Your task to perform on an android device: open app "Booking.com: Hotels and more" Image 0: 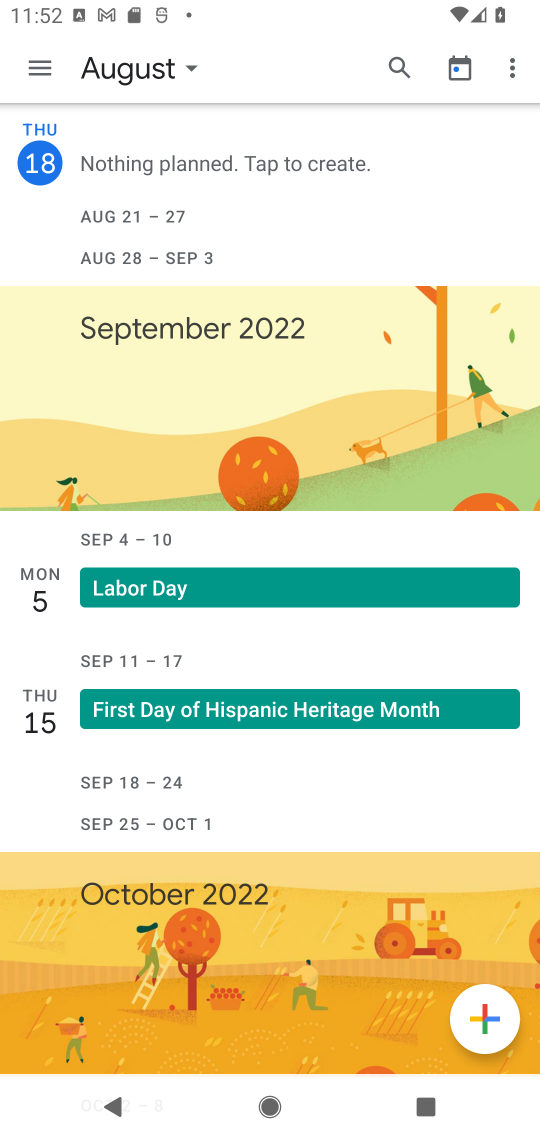
Step 0: press home button
Your task to perform on an android device: open app "Booking.com: Hotels and more" Image 1: 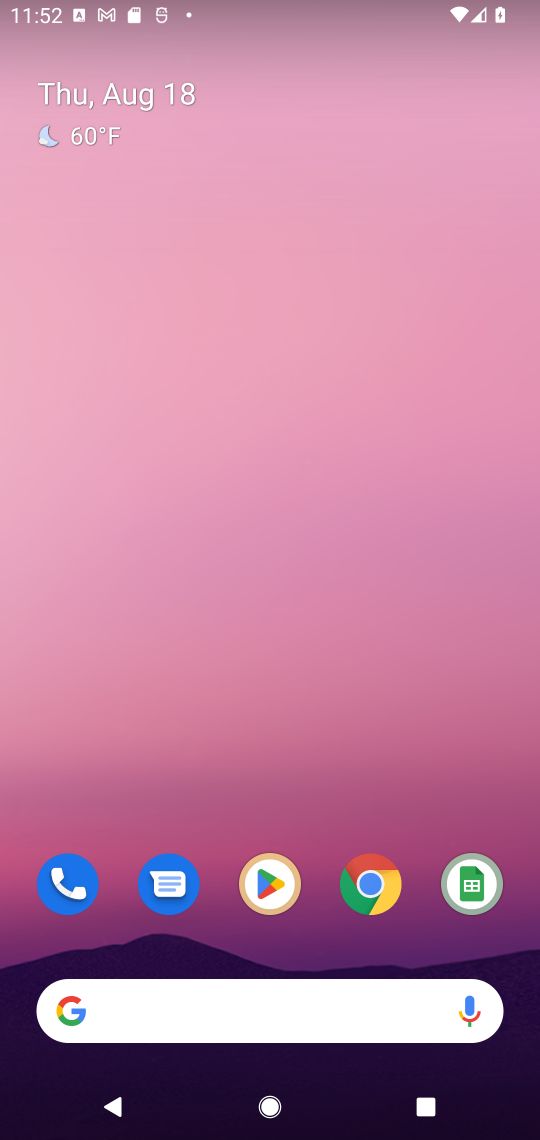
Step 1: drag from (202, 1006) to (251, 163)
Your task to perform on an android device: open app "Booking.com: Hotels and more" Image 2: 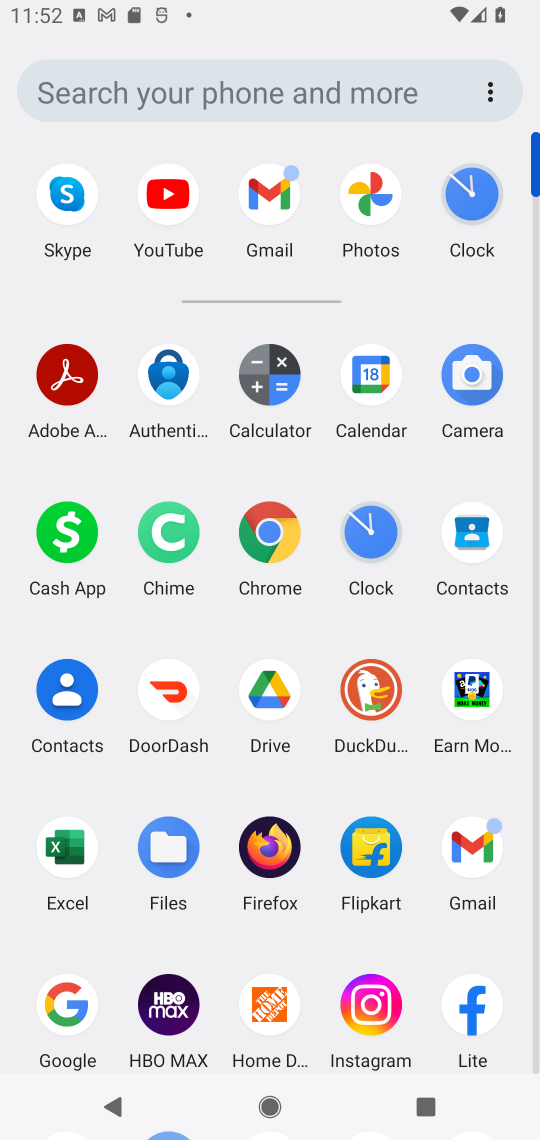
Step 2: drag from (292, 942) to (253, 369)
Your task to perform on an android device: open app "Booking.com: Hotels and more" Image 3: 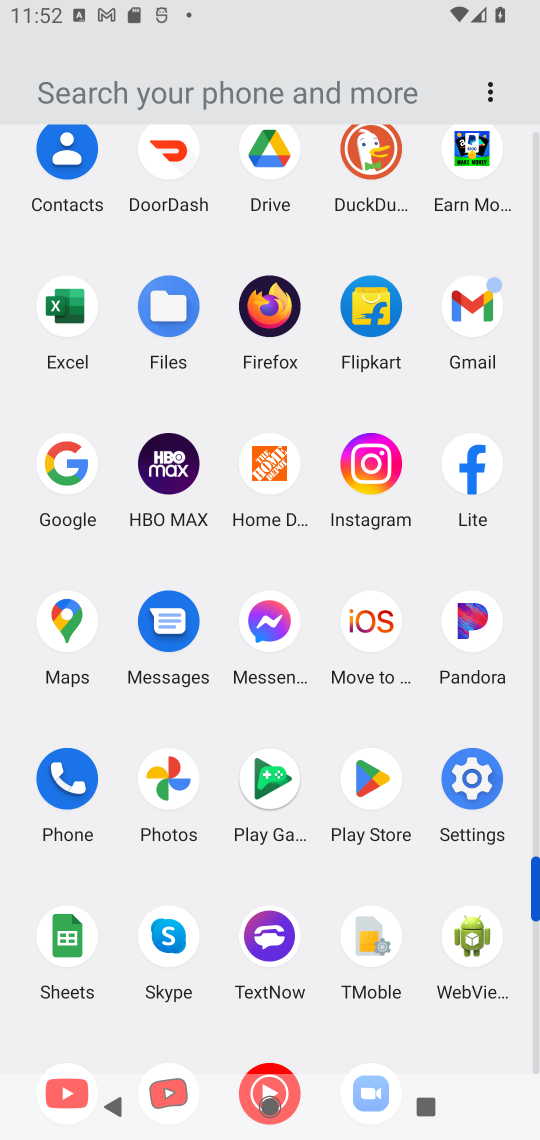
Step 3: click (361, 781)
Your task to perform on an android device: open app "Booking.com: Hotels and more" Image 4: 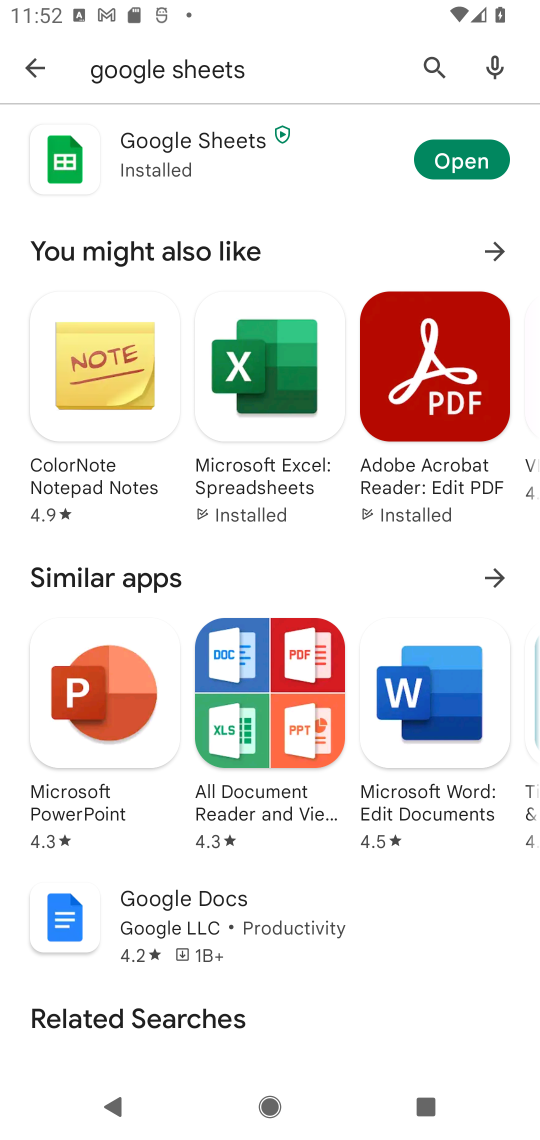
Step 4: press back button
Your task to perform on an android device: open app "Booking.com: Hotels and more" Image 5: 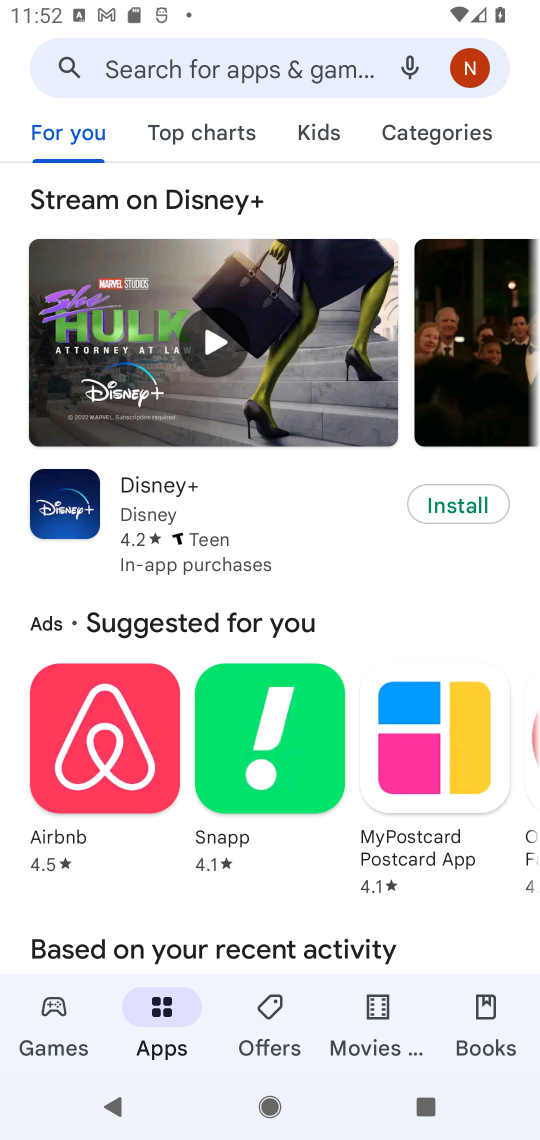
Step 5: click (293, 62)
Your task to perform on an android device: open app "Booking.com: Hotels and more" Image 6: 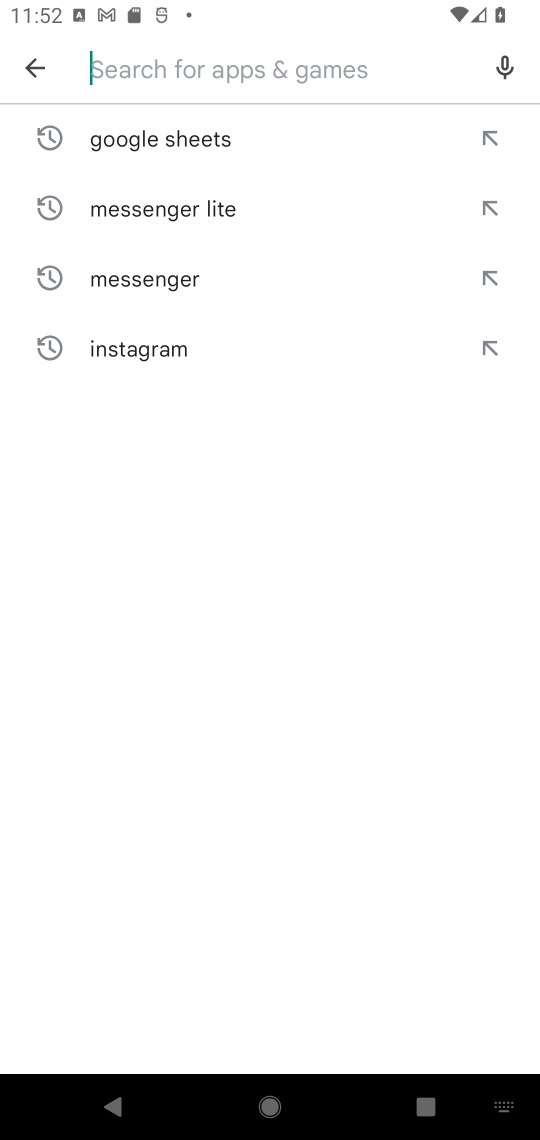
Step 6: type "Booking.com: Hotels and more"
Your task to perform on an android device: open app "Booking.com: Hotels and more" Image 7: 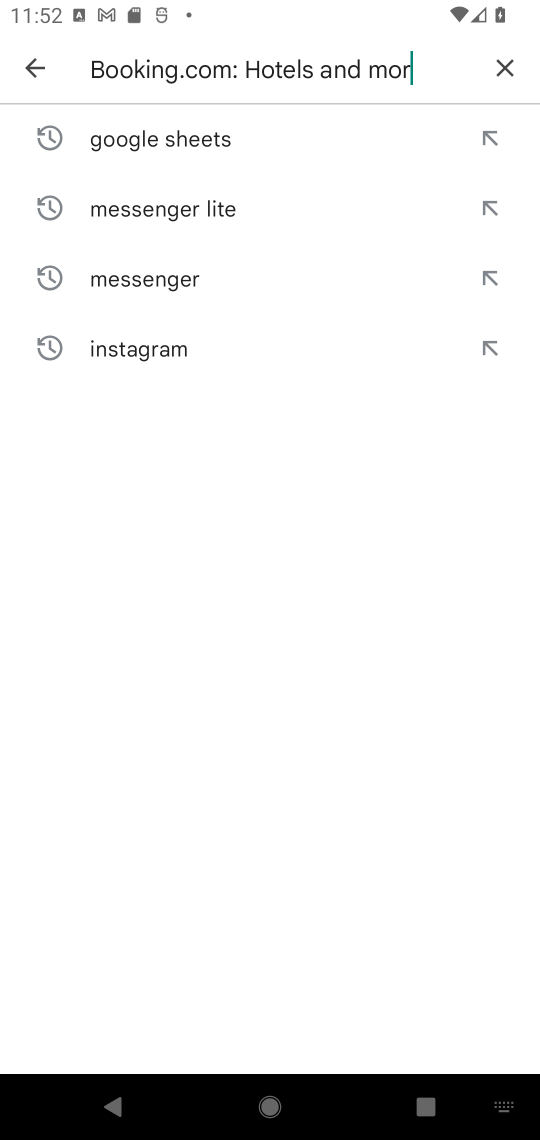
Step 7: type ""
Your task to perform on an android device: open app "Booking.com: Hotels and more" Image 8: 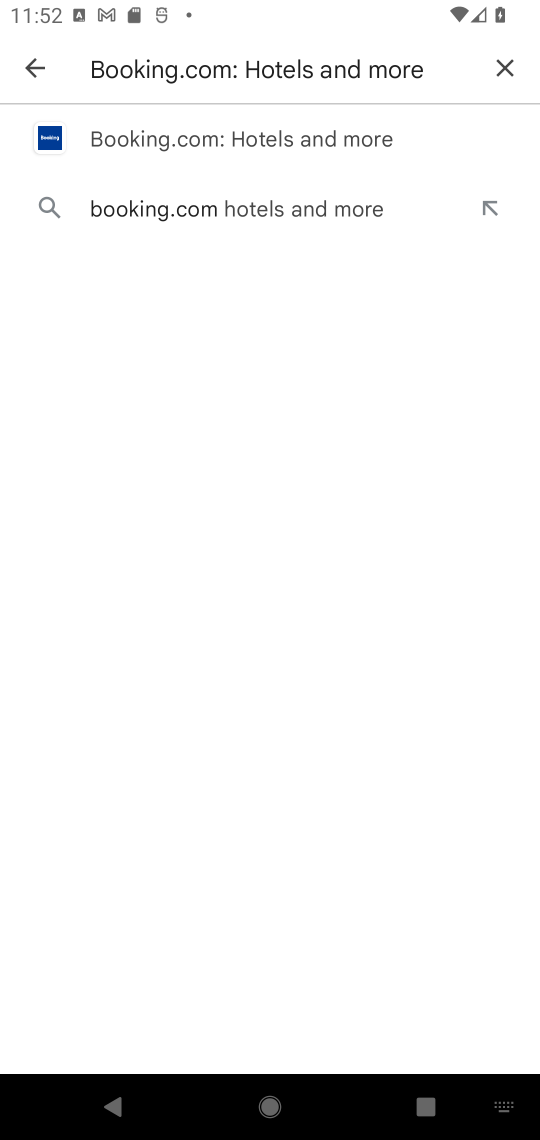
Step 8: click (273, 130)
Your task to perform on an android device: open app "Booking.com: Hotels and more" Image 9: 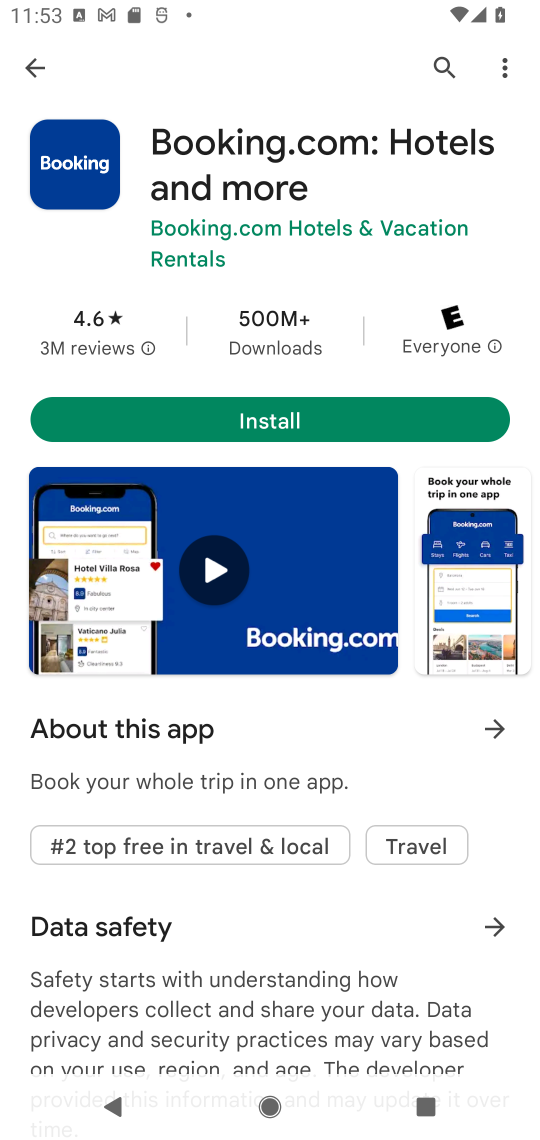
Step 9: task complete